Your task to perform on an android device: delete browsing data in the chrome app Image 0: 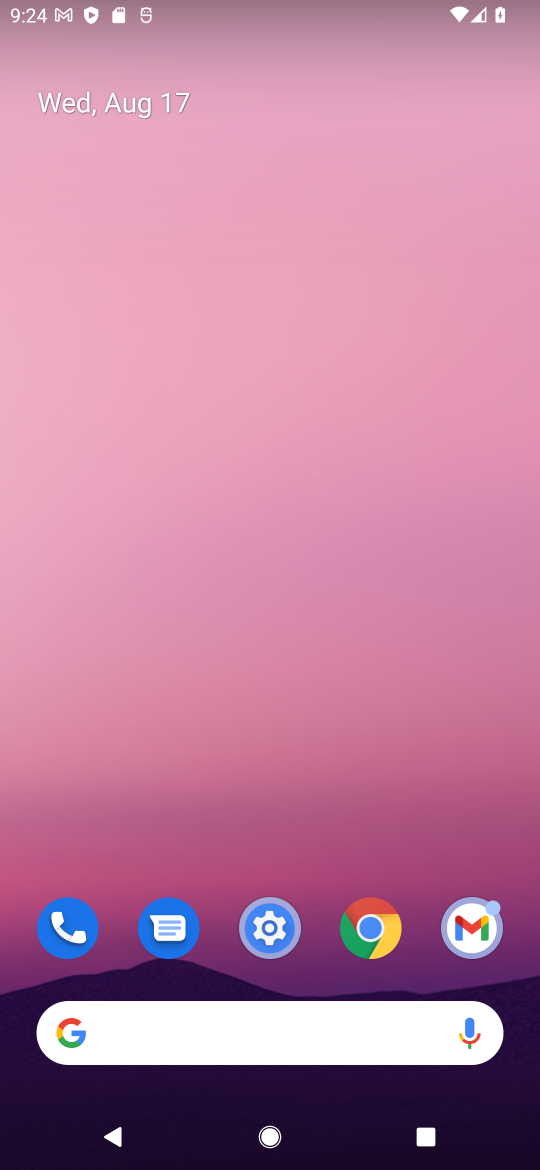
Step 0: click (347, 920)
Your task to perform on an android device: delete browsing data in the chrome app Image 1: 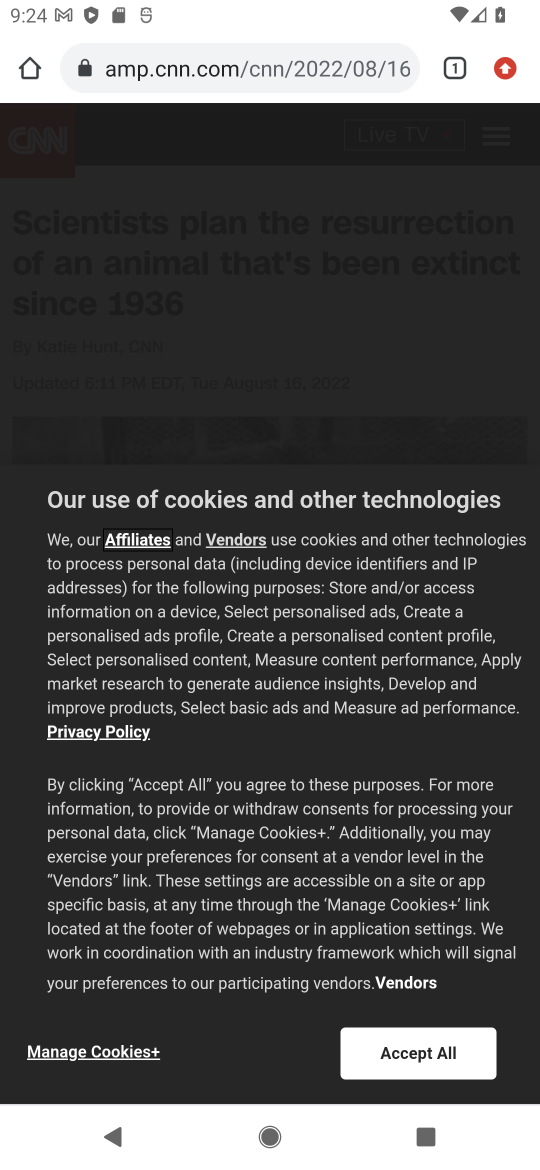
Step 1: click (511, 68)
Your task to perform on an android device: delete browsing data in the chrome app Image 2: 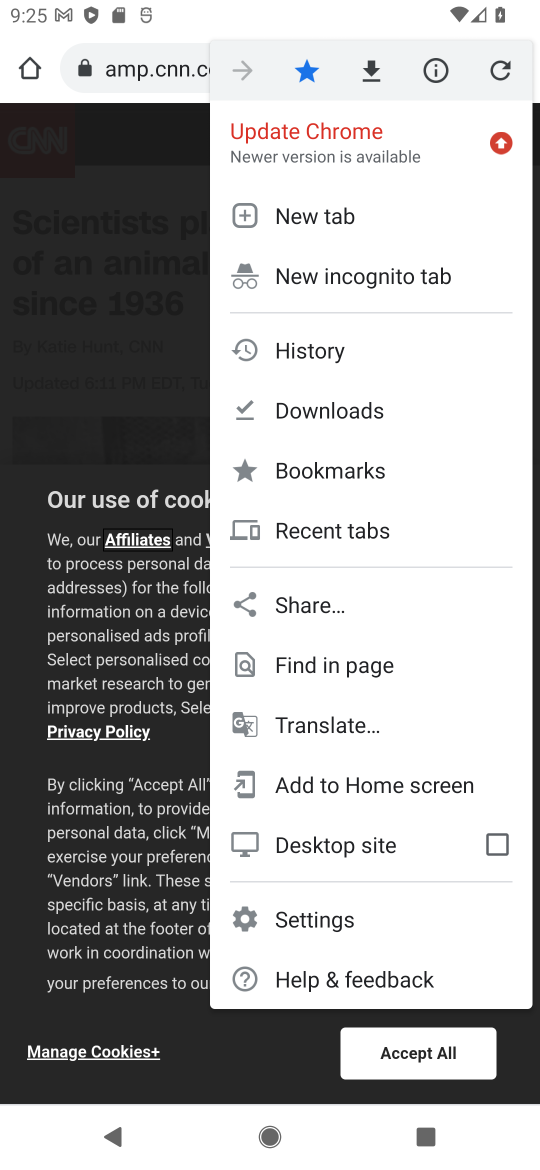
Step 2: click (331, 346)
Your task to perform on an android device: delete browsing data in the chrome app Image 3: 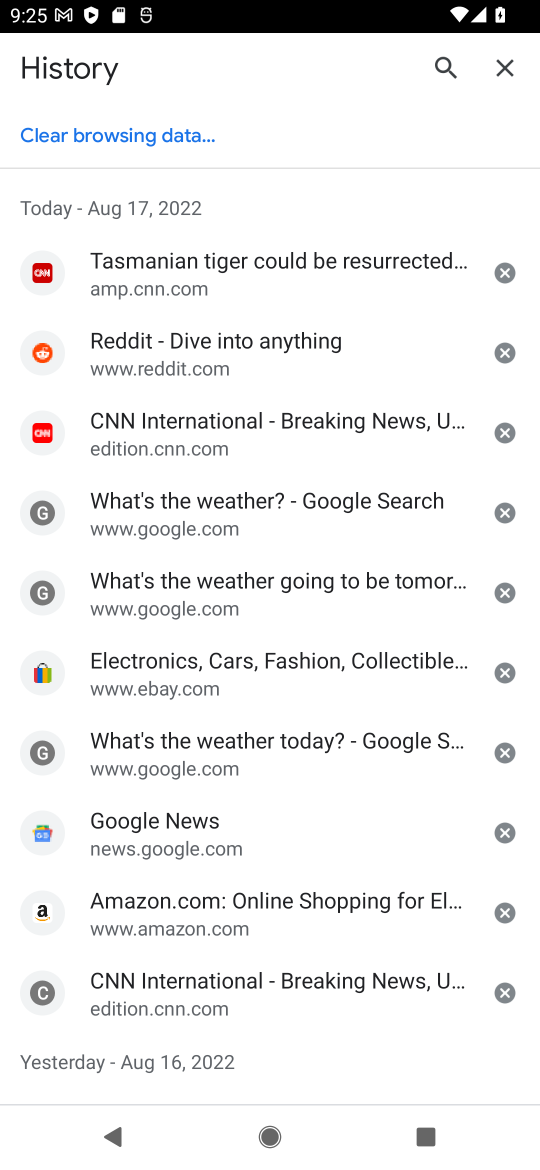
Step 3: click (142, 129)
Your task to perform on an android device: delete browsing data in the chrome app Image 4: 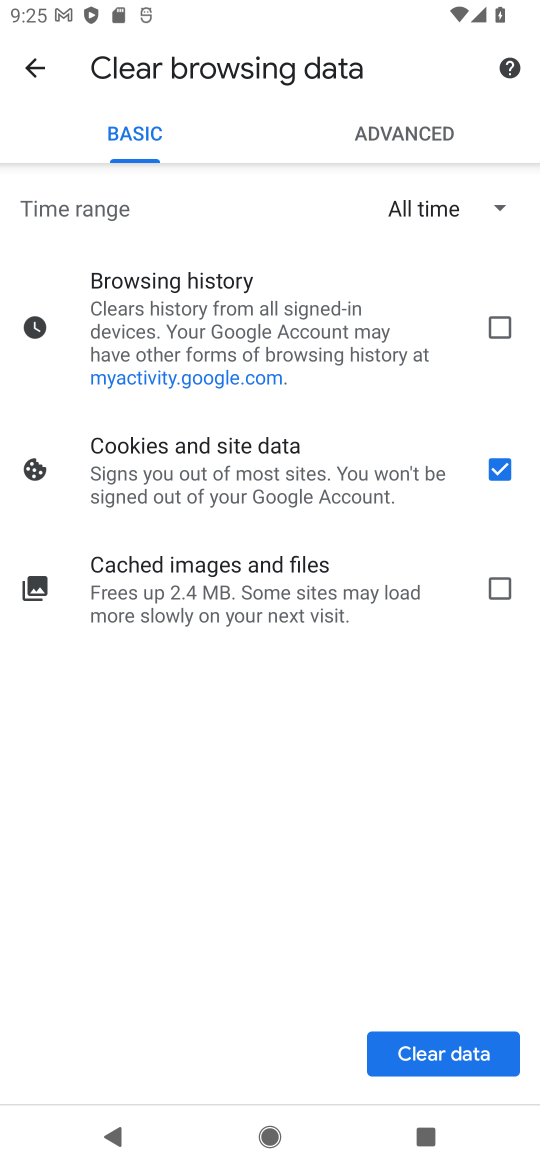
Step 4: click (492, 324)
Your task to perform on an android device: delete browsing data in the chrome app Image 5: 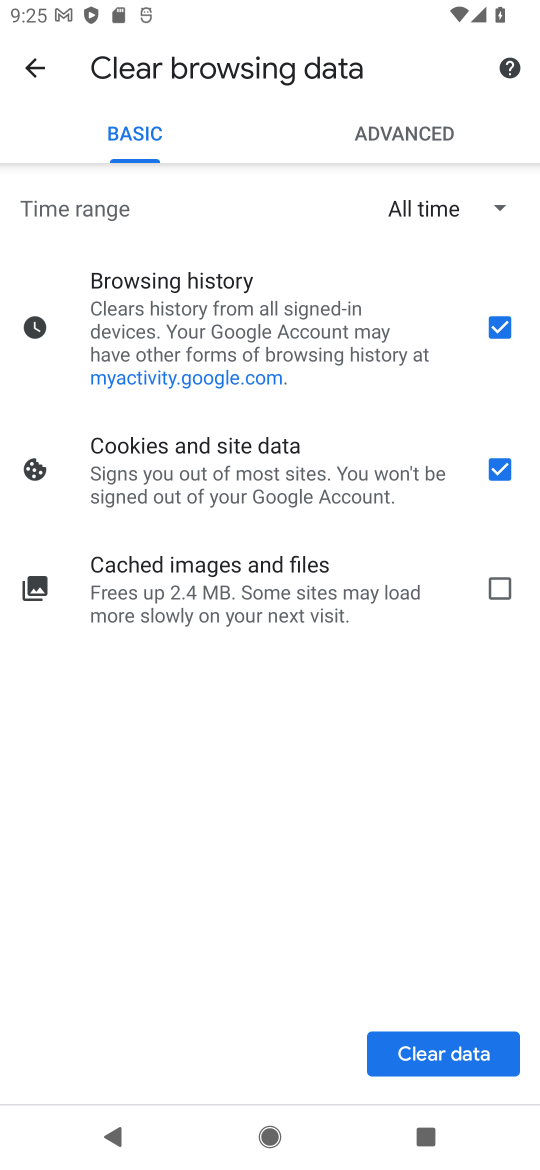
Step 5: click (441, 1059)
Your task to perform on an android device: delete browsing data in the chrome app Image 6: 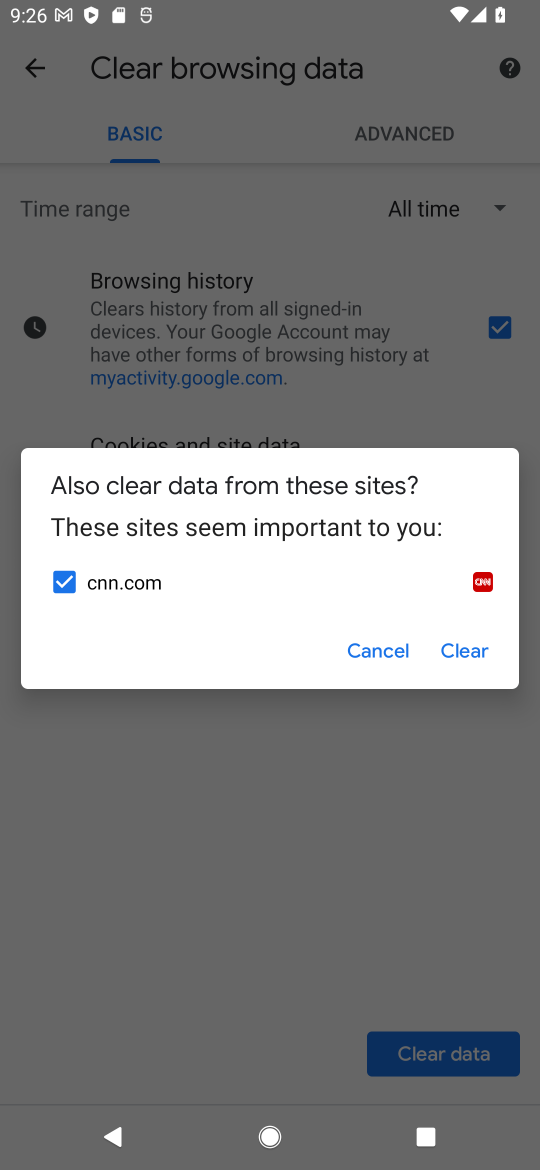
Step 6: click (473, 649)
Your task to perform on an android device: delete browsing data in the chrome app Image 7: 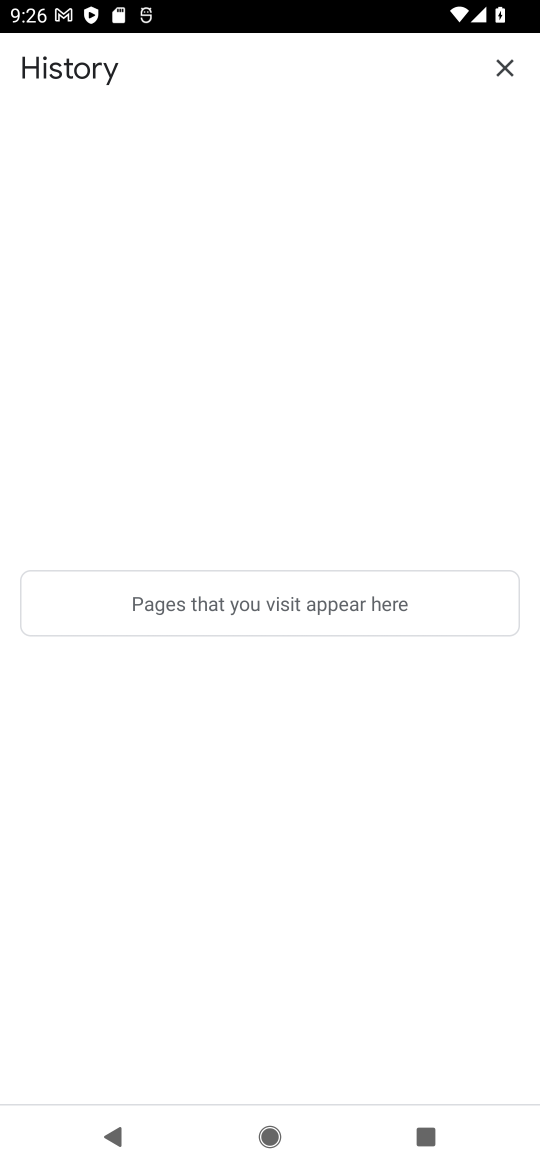
Step 7: task complete